Your task to perform on an android device: turn on bluetooth scan Image 0: 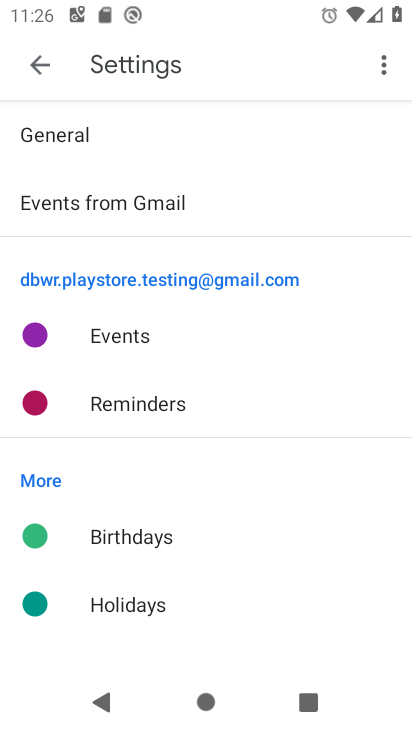
Step 0: press home button
Your task to perform on an android device: turn on bluetooth scan Image 1: 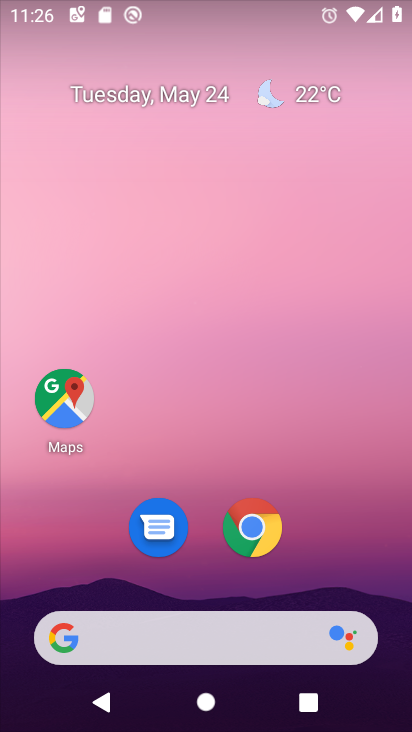
Step 1: drag from (267, 255) to (253, 152)
Your task to perform on an android device: turn on bluetooth scan Image 2: 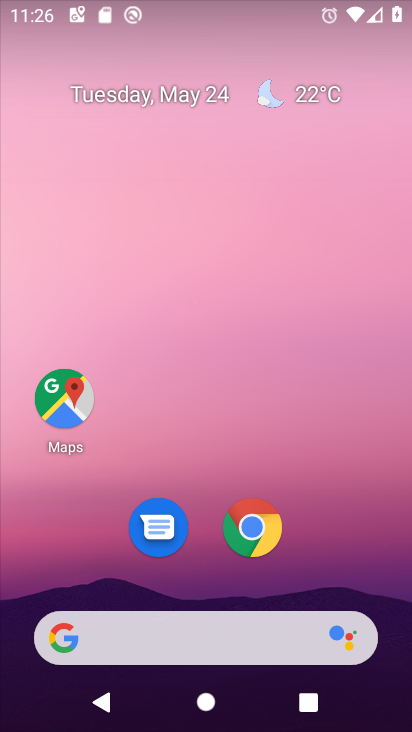
Step 2: drag from (191, 638) to (303, 54)
Your task to perform on an android device: turn on bluetooth scan Image 3: 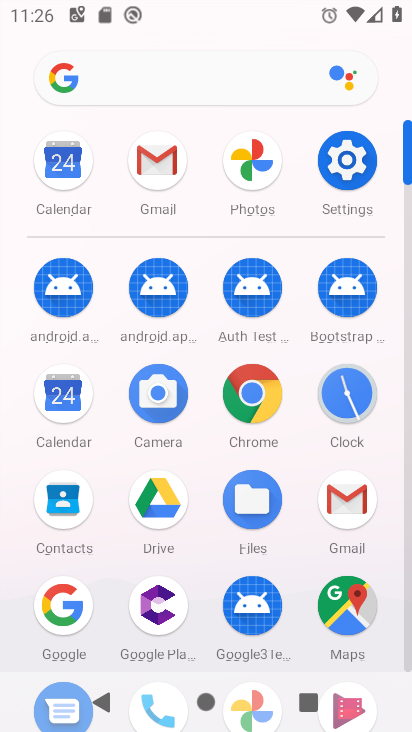
Step 3: click (354, 170)
Your task to perform on an android device: turn on bluetooth scan Image 4: 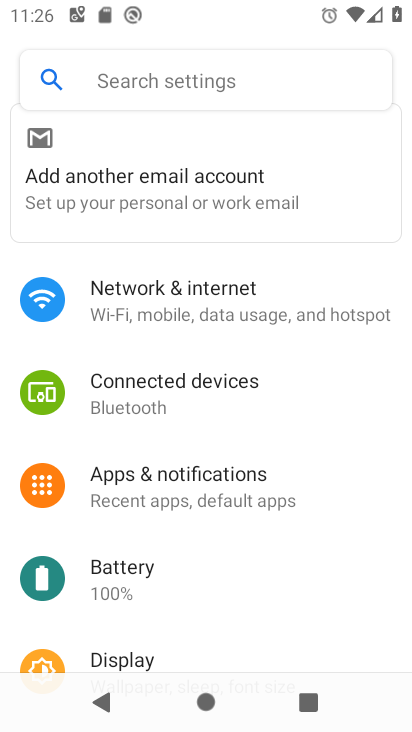
Step 4: drag from (223, 604) to (301, 113)
Your task to perform on an android device: turn on bluetooth scan Image 5: 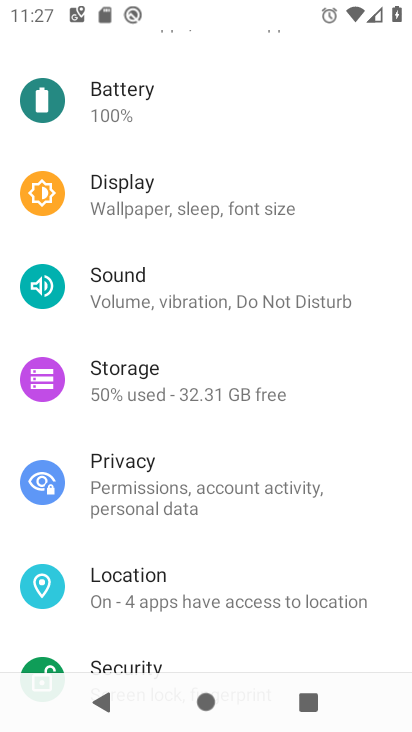
Step 5: click (148, 581)
Your task to perform on an android device: turn on bluetooth scan Image 6: 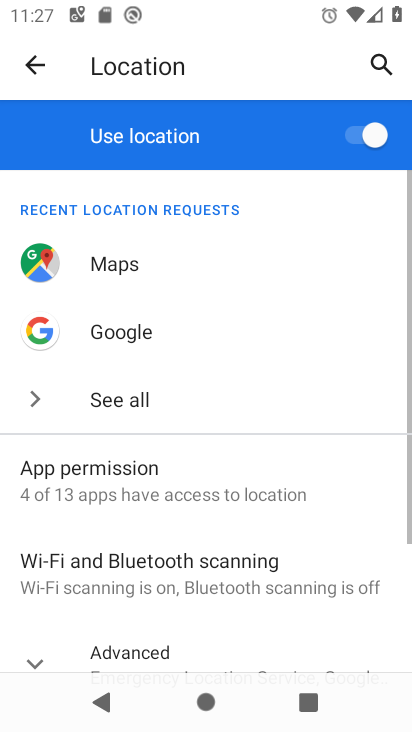
Step 6: click (240, 572)
Your task to perform on an android device: turn on bluetooth scan Image 7: 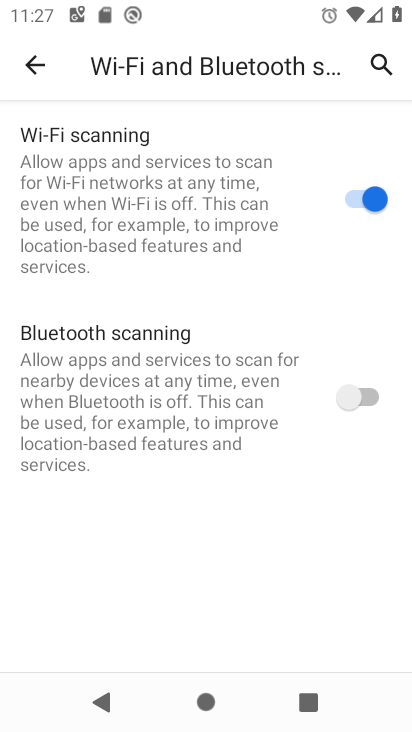
Step 7: click (370, 396)
Your task to perform on an android device: turn on bluetooth scan Image 8: 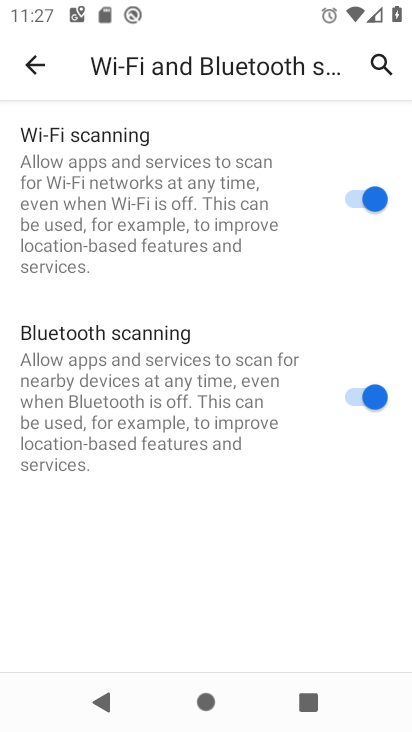
Step 8: task complete